Your task to perform on an android device: turn off priority inbox in the gmail app Image 0: 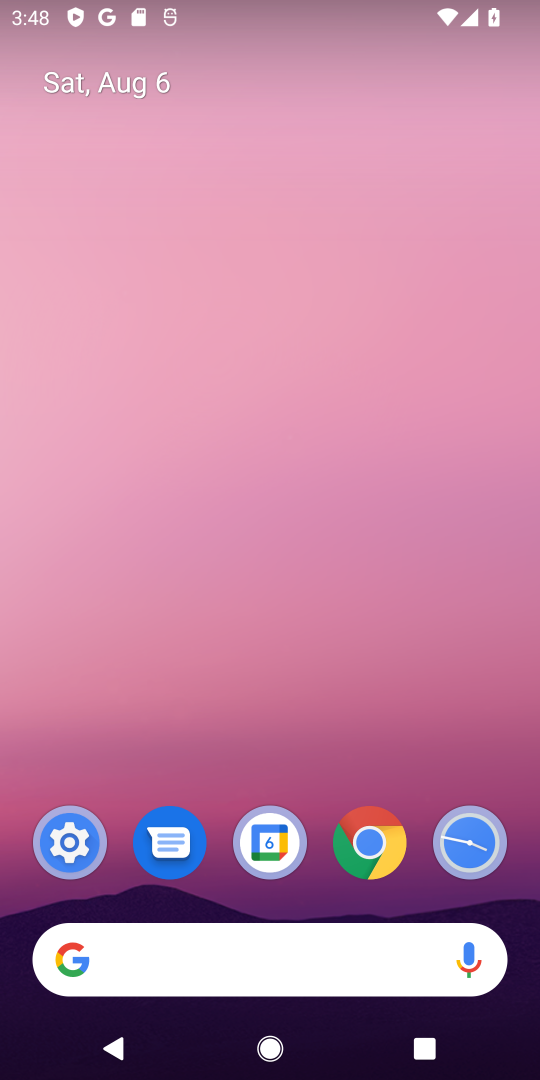
Step 0: drag from (527, 1053) to (422, 42)
Your task to perform on an android device: turn off priority inbox in the gmail app Image 1: 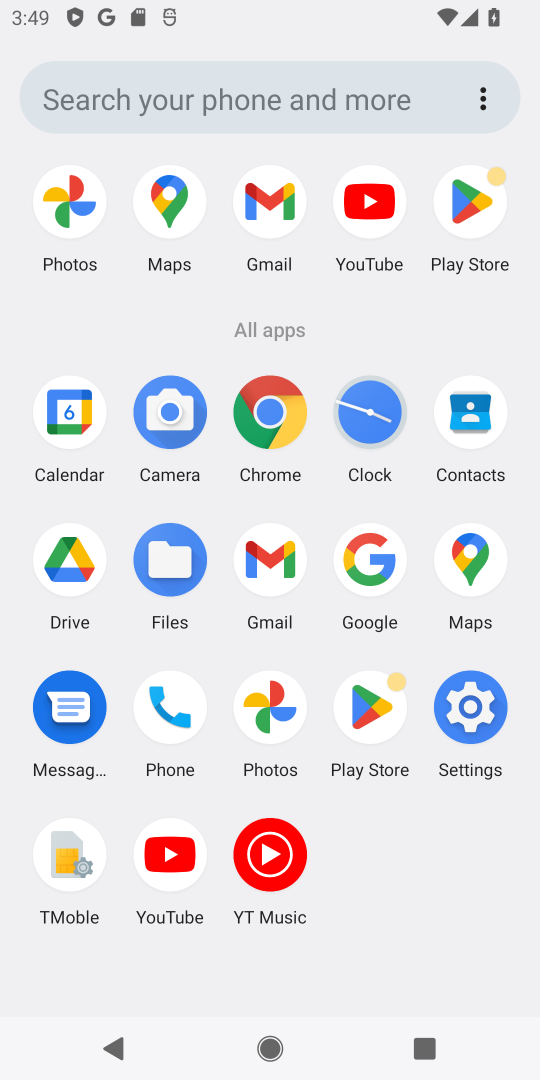
Step 1: click (273, 568)
Your task to perform on an android device: turn off priority inbox in the gmail app Image 2: 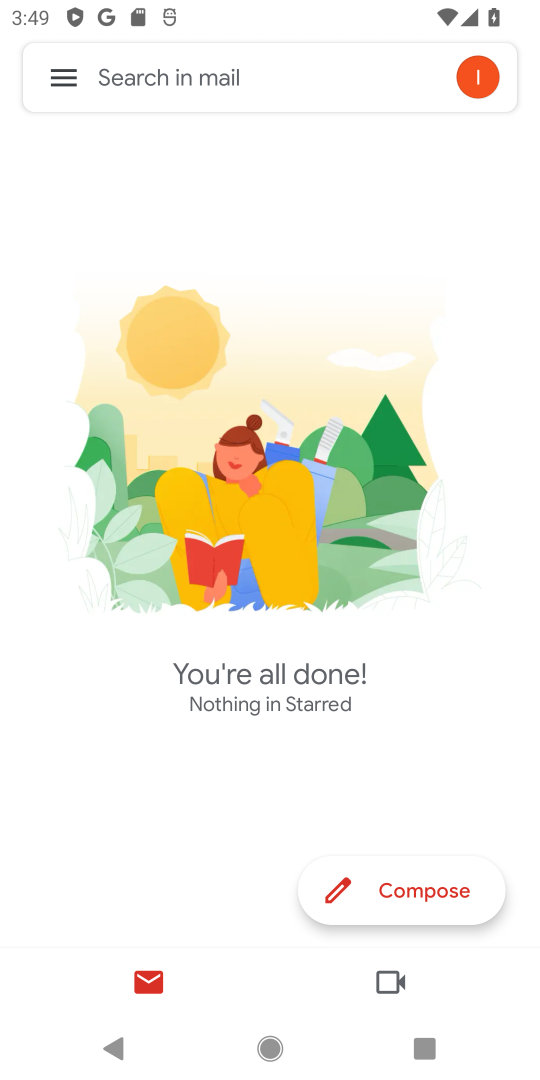
Step 2: click (55, 67)
Your task to perform on an android device: turn off priority inbox in the gmail app Image 3: 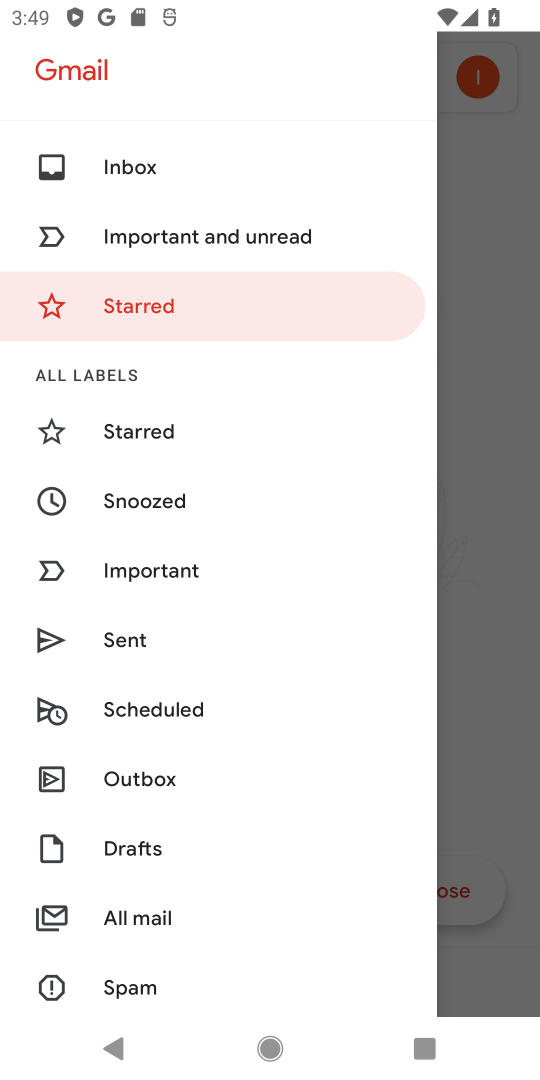
Step 3: drag from (275, 945) to (275, 416)
Your task to perform on an android device: turn off priority inbox in the gmail app Image 4: 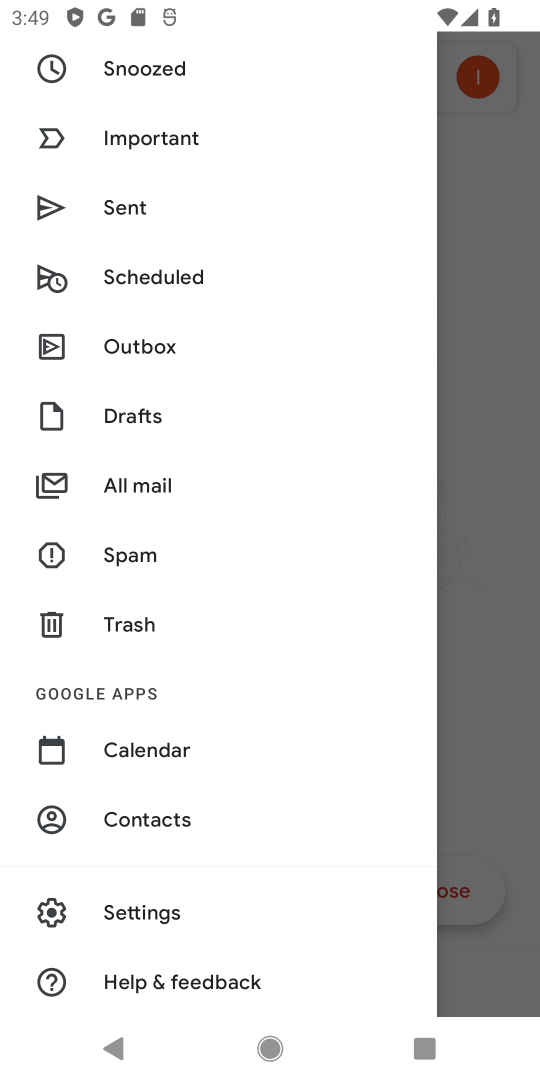
Step 4: click (146, 906)
Your task to perform on an android device: turn off priority inbox in the gmail app Image 5: 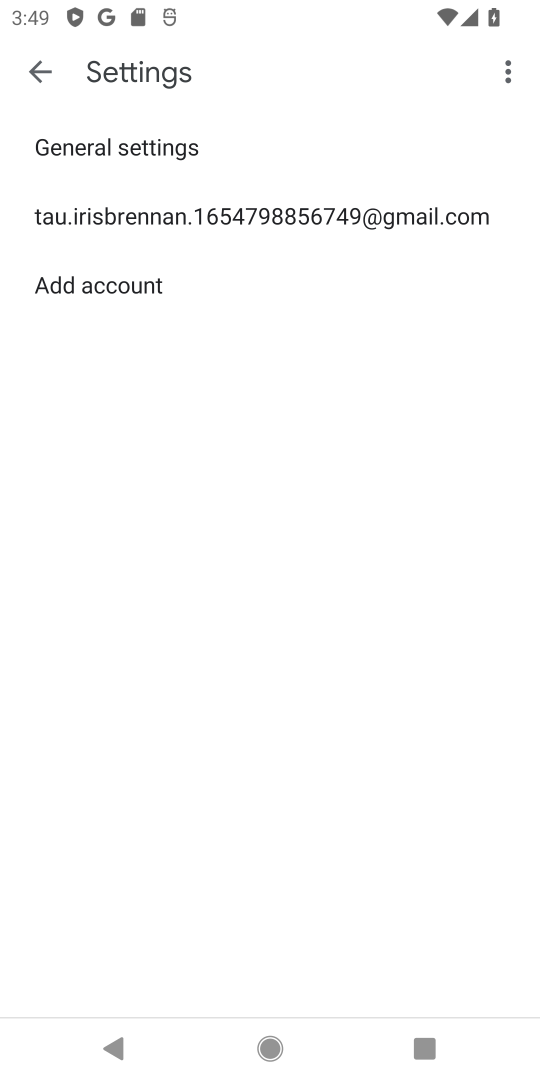
Step 5: click (151, 208)
Your task to perform on an android device: turn off priority inbox in the gmail app Image 6: 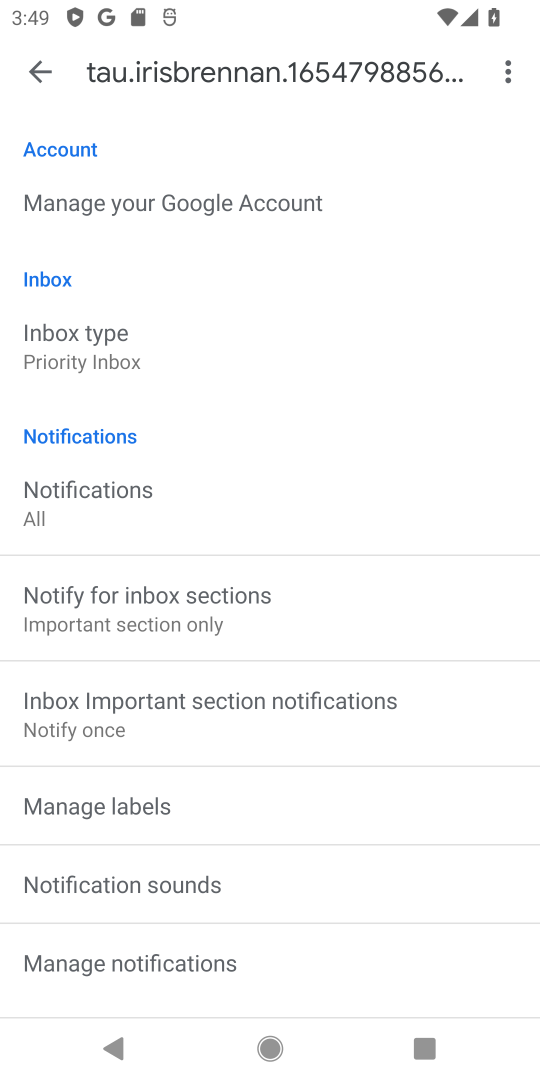
Step 6: drag from (338, 958) to (361, 575)
Your task to perform on an android device: turn off priority inbox in the gmail app Image 7: 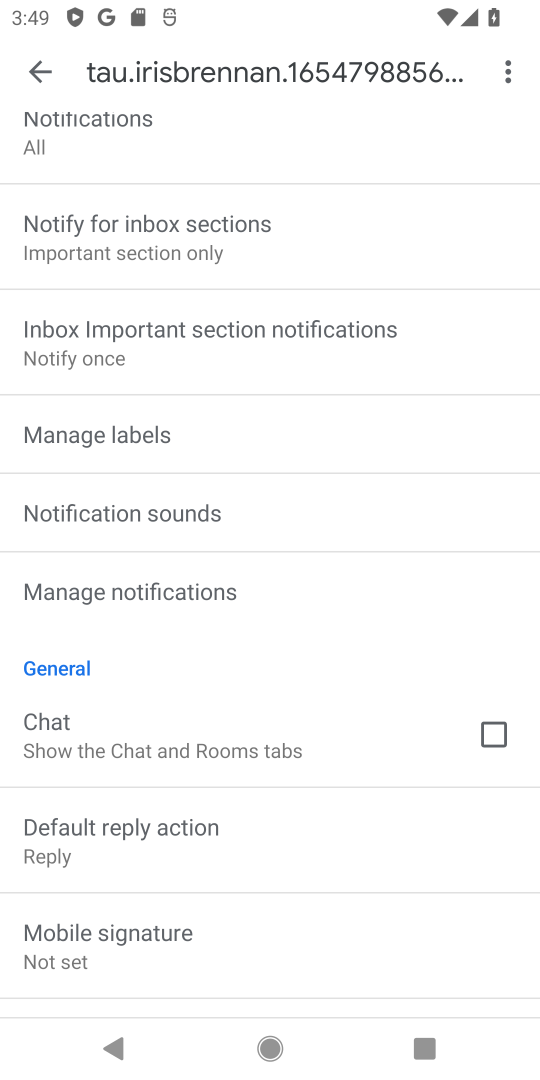
Step 7: drag from (363, 948) to (319, 481)
Your task to perform on an android device: turn off priority inbox in the gmail app Image 8: 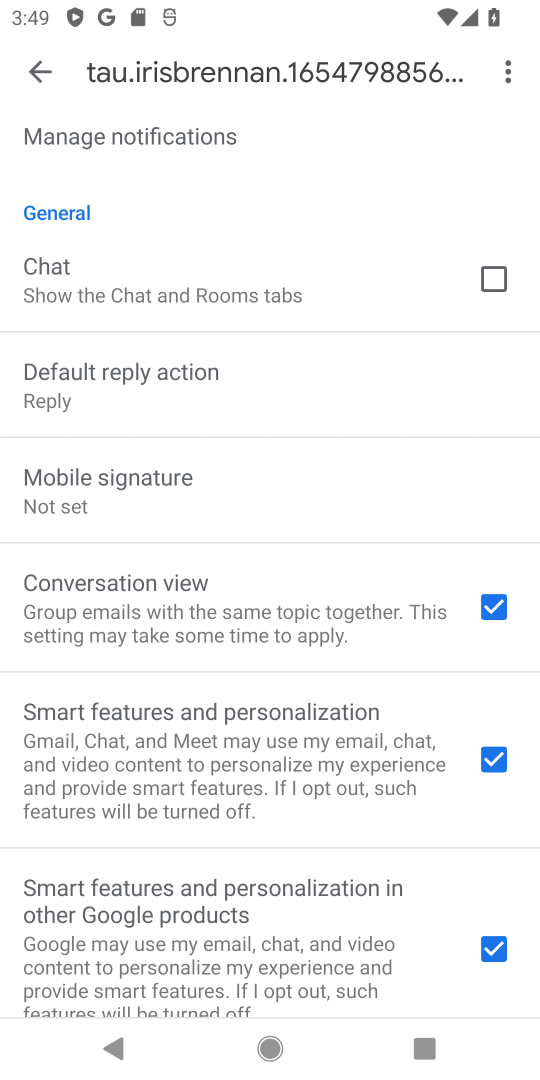
Step 8: drag from (402, 958) to (388, 401)
Your task to perform on an android device: turn off priority inbox in the gmail app Image 9: 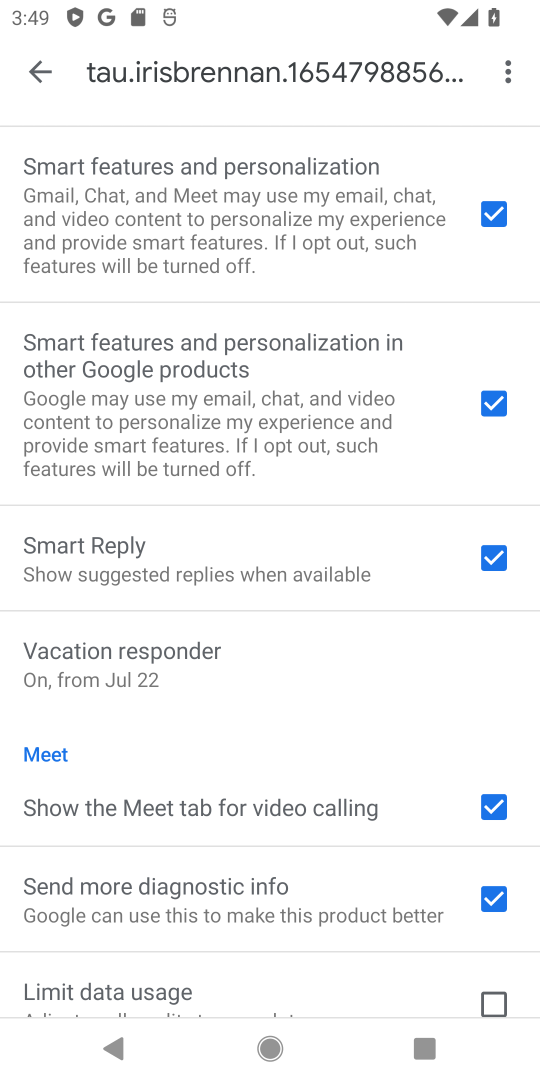
Step 9: drag from (356, 971) to (346, 496)
Your task to perform on an android device: turn off priority inbox in the gmail app Image 10: 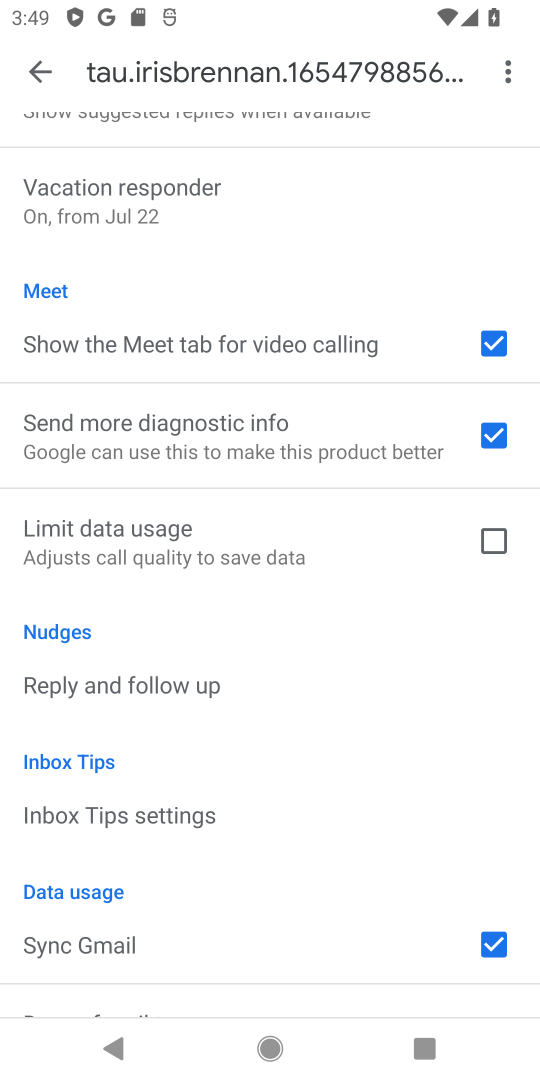
Step 10: drag from (316, 872) to (307, 422)
Your task to perform on an android device: turn off priority inbox in the gmail app Image 11: 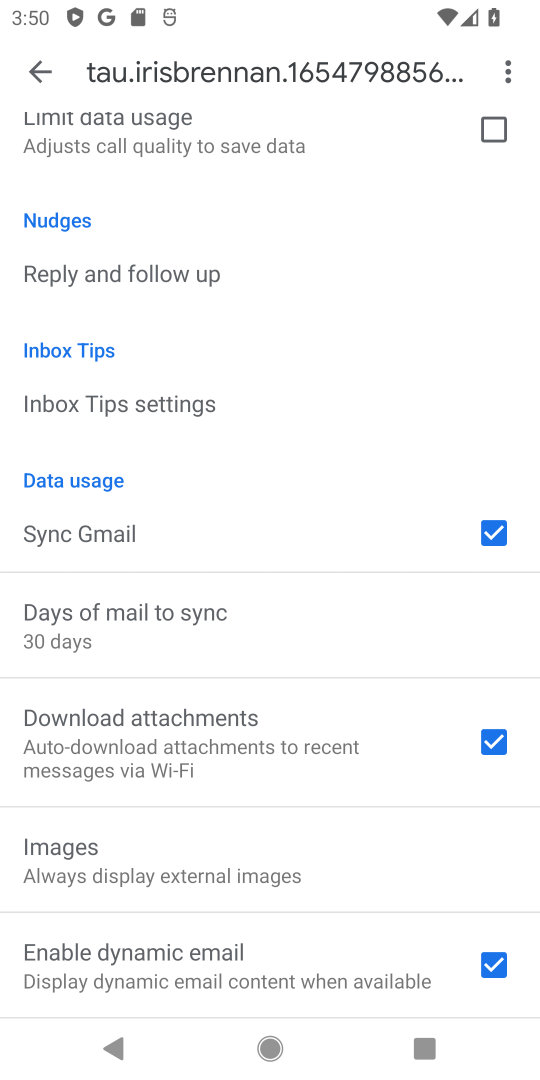
Step 11: drag from (355, 260) to (361, 839)
Your task to perform on an android device: turn off priority inbox in the gmail app Image 12: 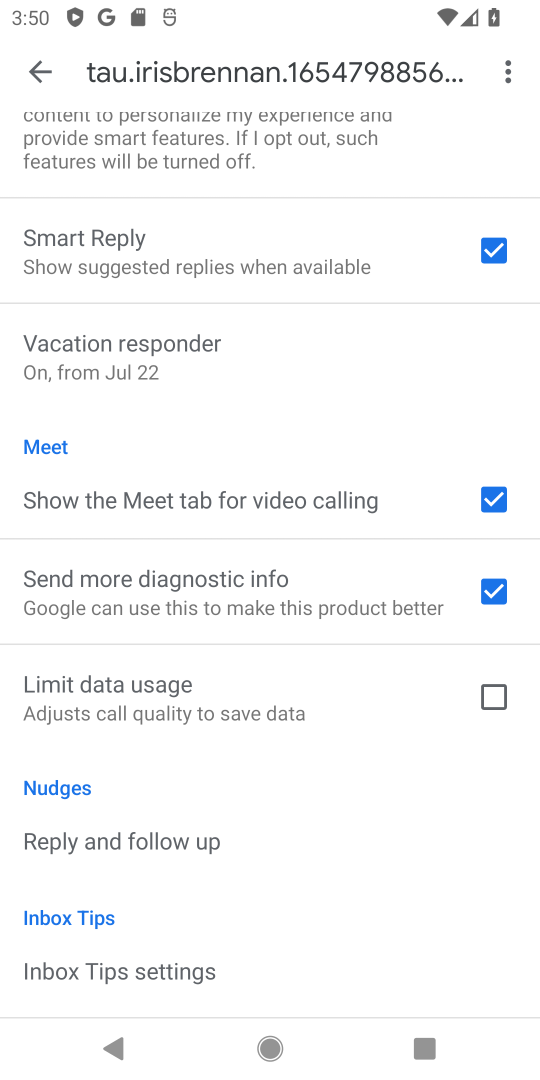
Step 12: drag from (314, 193) to (364, 850)
Your task to perform on an android device: turn off priority inbox in the gmail app Image 13: 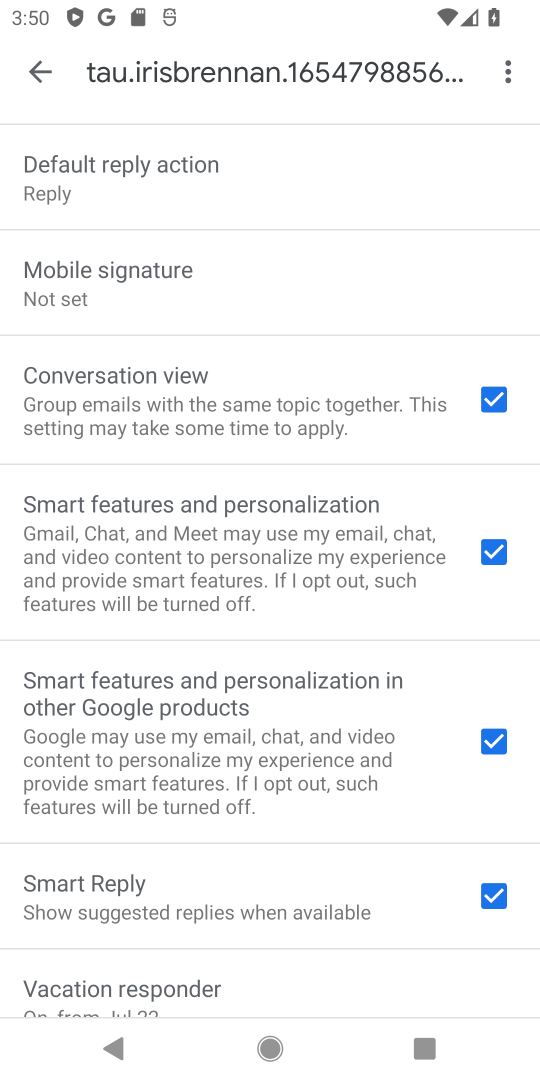
Step 13: drag from (322, 271) to (341, 903)
Your task to perform on an android device: turn off priority inbox in the gmail app Image 14: 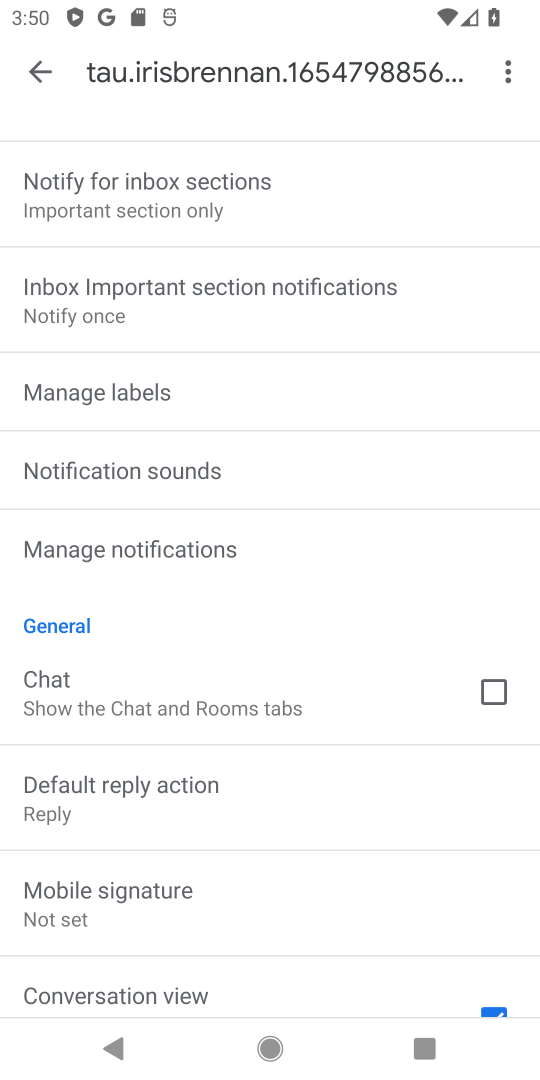
Step 14: drag from (397, 196) to (378, 845)
Your task to perform on an android device: turn off priority inbox in the gmail app Image 15: 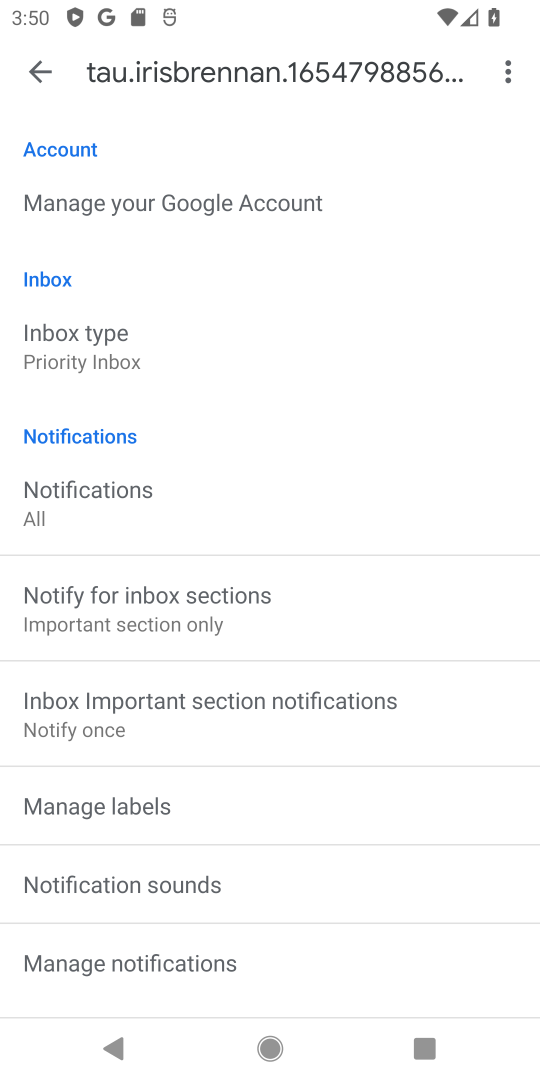
Step 15: click (82, 345)
Your task to perform on an android device: turn off priority inbox in the gmail app Image 16: 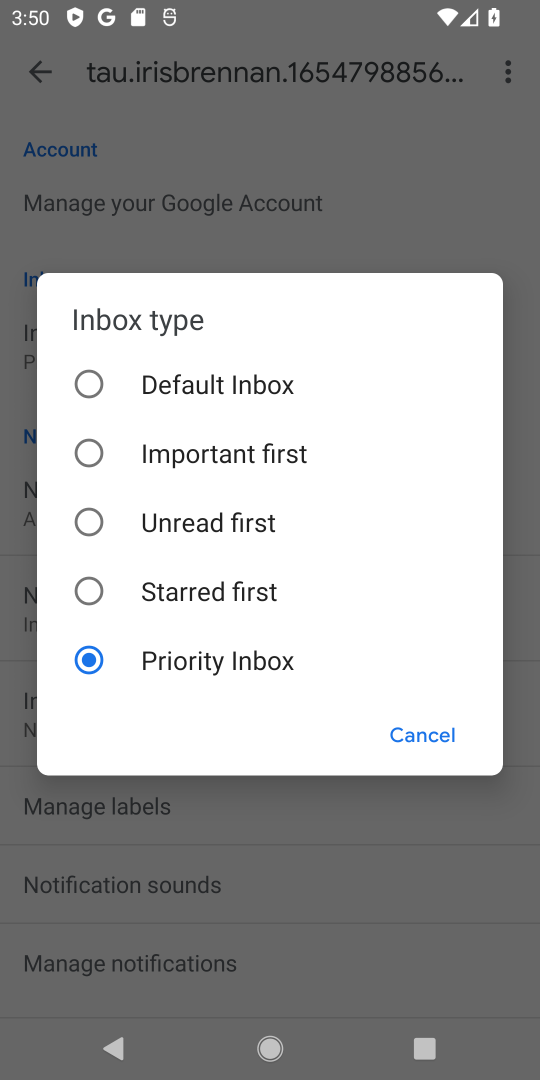
Step 16: click (80, 379)
Your task to perform on an android device: turn off priority inbox in the gmail app Image 17: 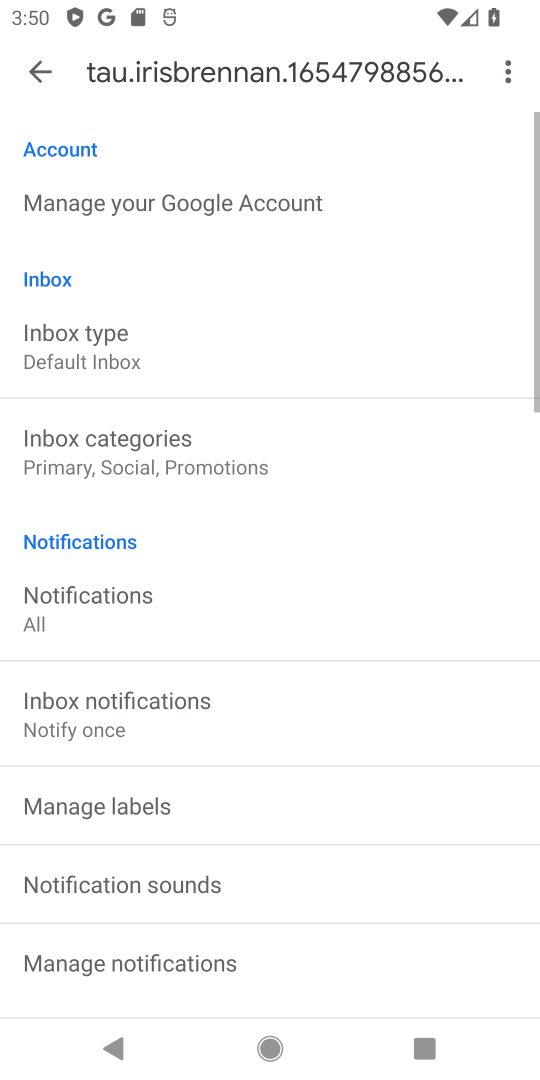
Step 17: task complete